Your task to perform on an android device: empty trash in the gmail app Image 0: 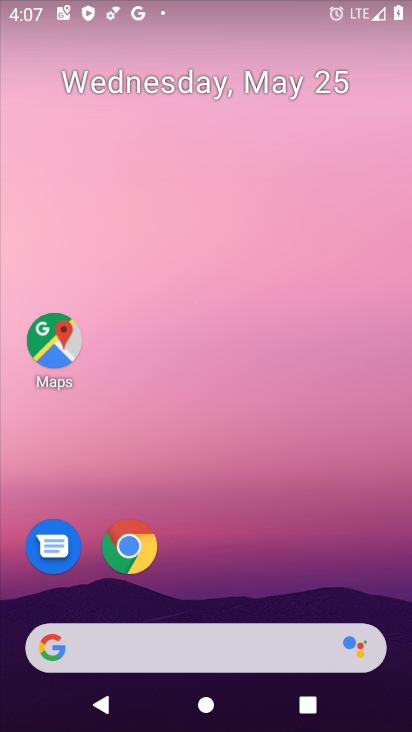
Step 0: drag from (231, 575) to (267, 30)
Your task to perform on an android device: empty trash in the gmail app Image 1: 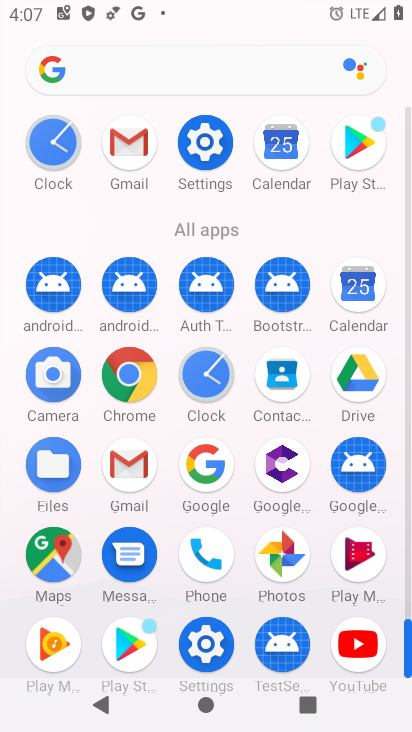
Step 1: click (120, 153)
Your task to perform on an android device: empty trash in the gmail app Image 2: 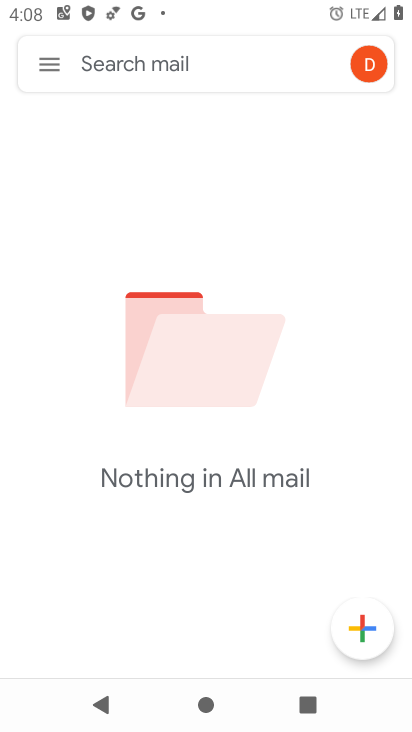
Step 2: click (50, 70)
Your task to perform on an android device: empty trash in the gmail app Image 3: 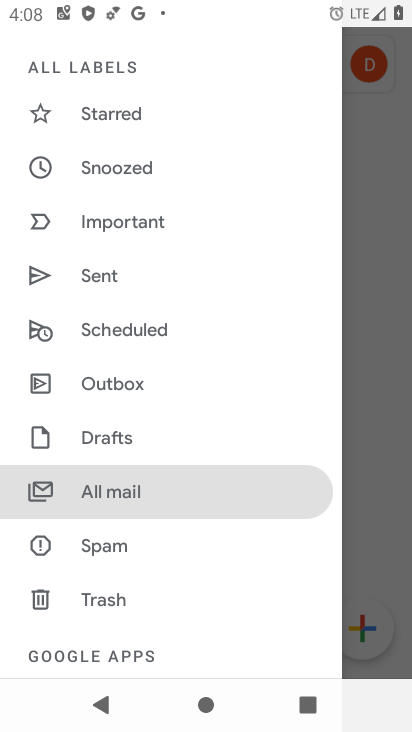
Step 3: click (117, 602)
Your task to perform on an android device: empty trash in the gmail app Image 4: 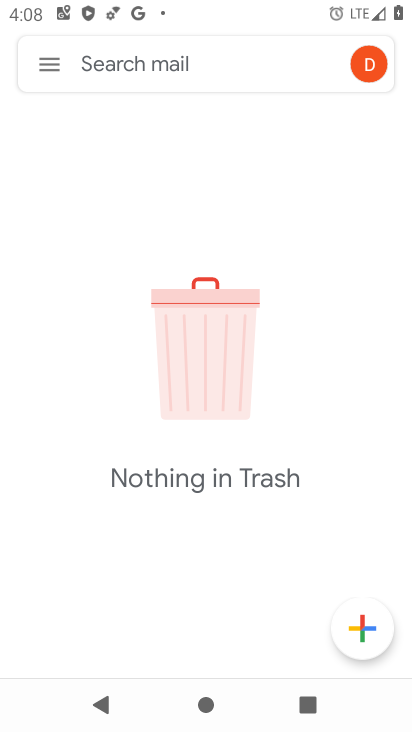
Step 4: task complete